Your task to perform on an android device: toggle priority inbox in the gmail app Image 0: 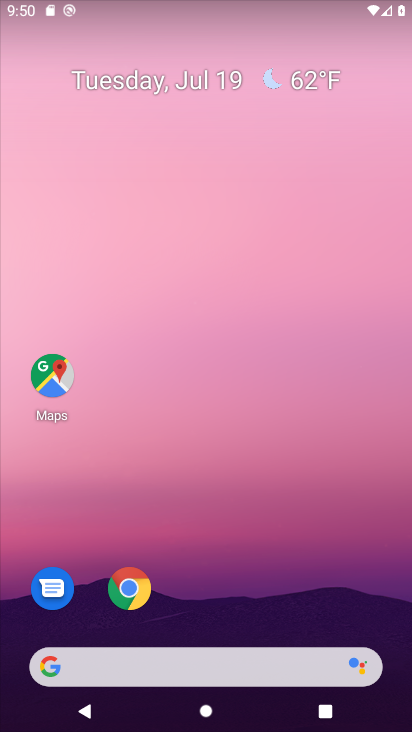
Step 0: drag from (198, 421) to (281, 133)
Your task to perform on an android device: toggle priority inbox in the gmail app Image 1: 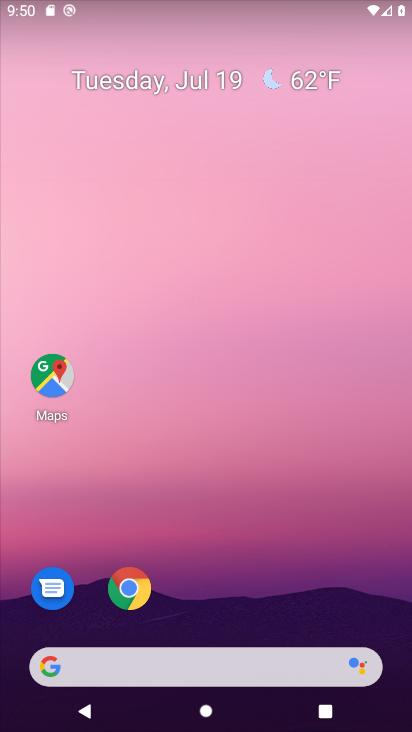
Step 1: drag from (189, 514) to (176, 116)
Your task to perform on an android device: toggle priority inbox in the gmail app Image 2: 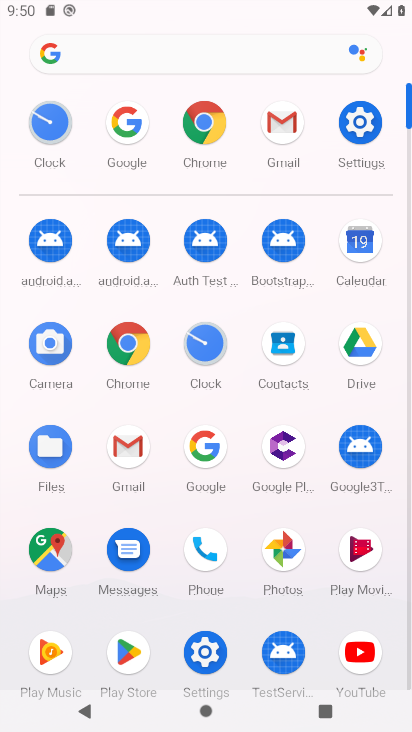
Step 2: click (294, 118)
Your task to perform on an android device: toggle priority inbox in the gmail app Image 3: 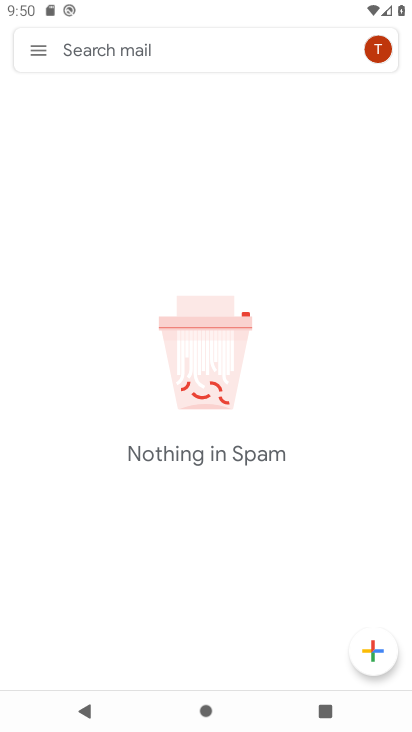
Step 3: click (37, 50)
Your task to perform on an android device: toggle priority inbox in the gmail app Image 4: 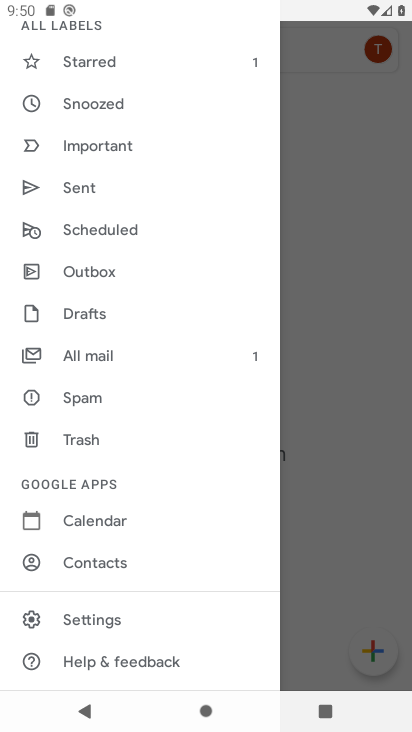
Step 4: click (91, 621)
Your task to perform on an android device: toggle priority inbox in the gmail app Image 5: 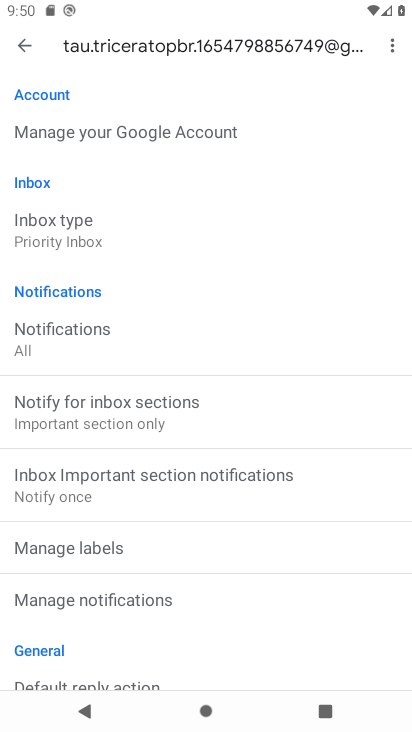
Step 5: click (61, 224)
Your task to perform on an android device: toggle priority inbox in the gmail app Image 6: 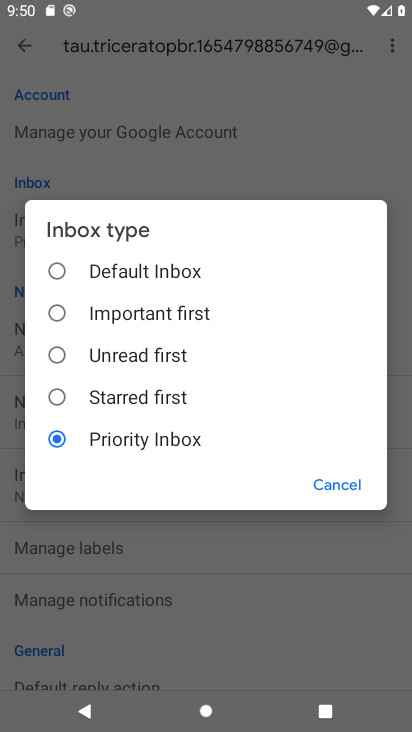
Step 6: click (52, 269)
Your task to perform on an android device: toggle priority inbox in the gmail app Image 7: 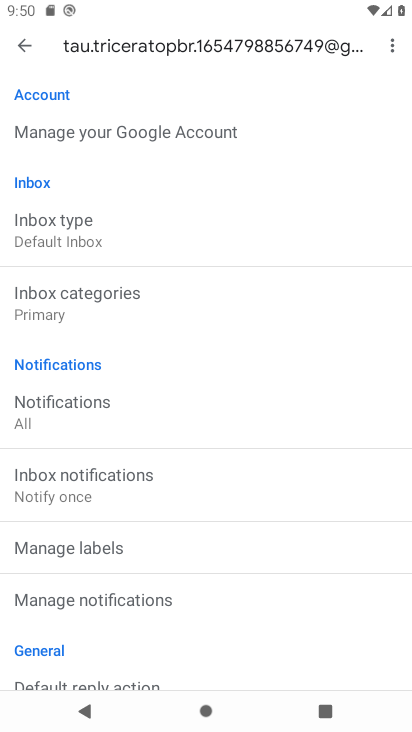
Step 7: task complete